Your task to perform on an android device: open chrome and create a bookmark for the current page Image 0: 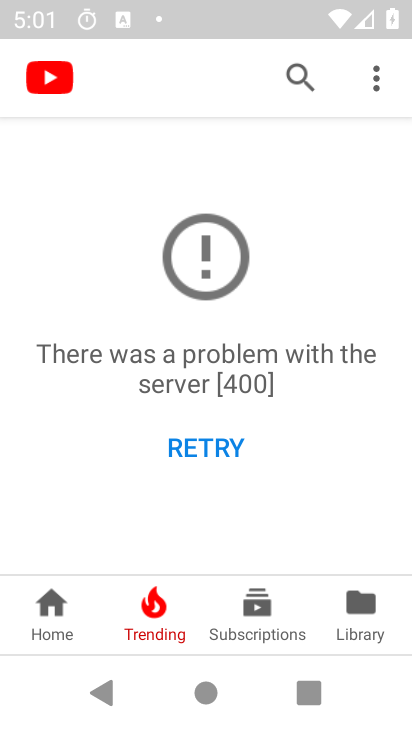
Step 0: press home button
Your task to perform on an android device: open chrome and create a bookmark for the current page Image 1: 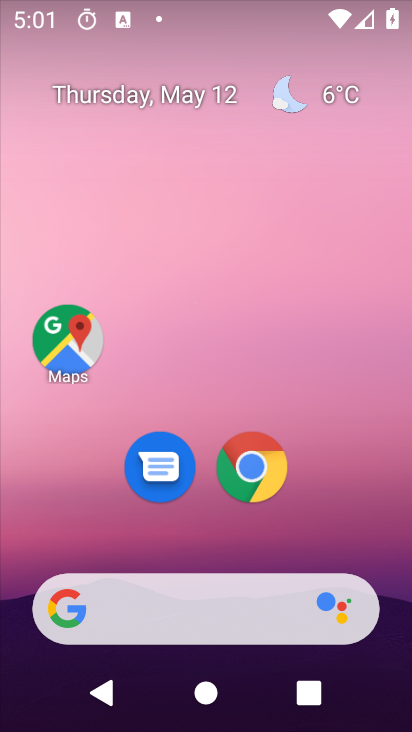
Step 1: drag from (239, 570) to (343, 41)
Your task to perform on an android device: open chrome and create a bookmark for the current page Image 2: 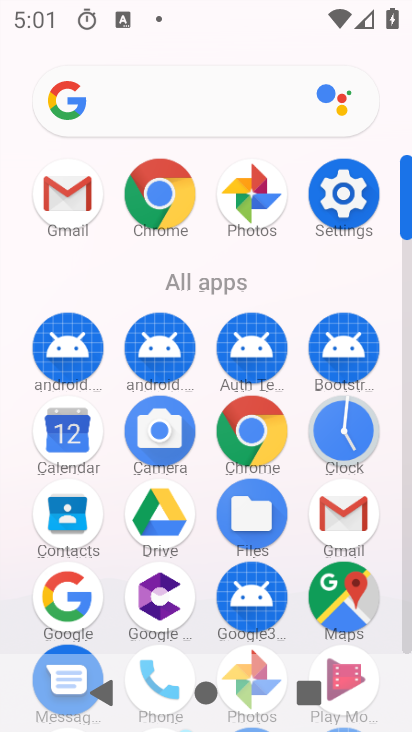
Step 2: click (248, 424)
Your task to perform on an android device: open chrome and create a bookmark for the current page Image 3: 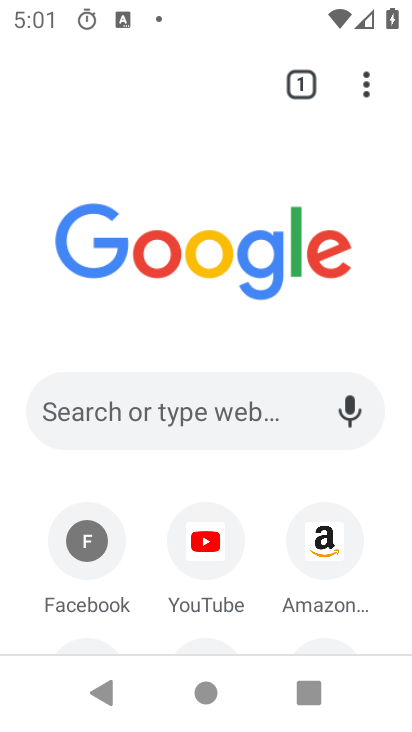
Step 3: task complete